Your task to perform on an android device: What's on my calendar today? Image 0: 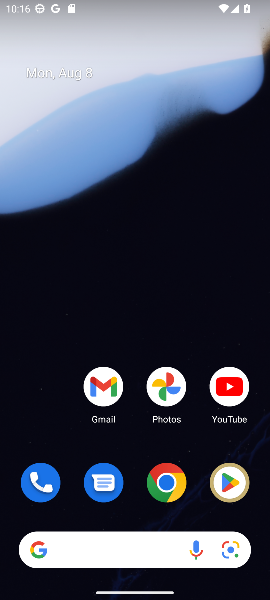
Step 0: drag from (143, 458) to (133, 10)
Your task to perform on an android device: What's on my calendar today? Image 1: 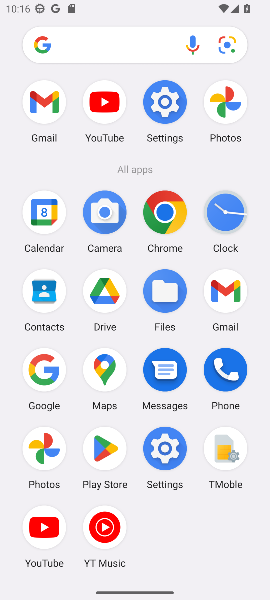
Step 1: click (44, 209)
Your task to perform on an android device: What's on my calendar today? Image 2: 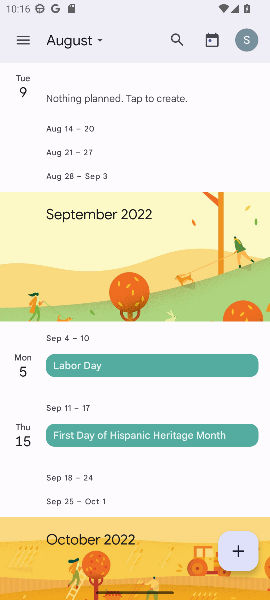
Step 2: click (78, 40)
Your task to perform on an android device: What's on my calendar today? Image 3: 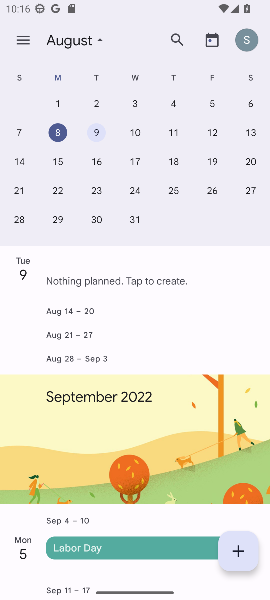
Step 3: click (56, 138)
Your task to perform on an android device: What's on my calendar today? Image 4: 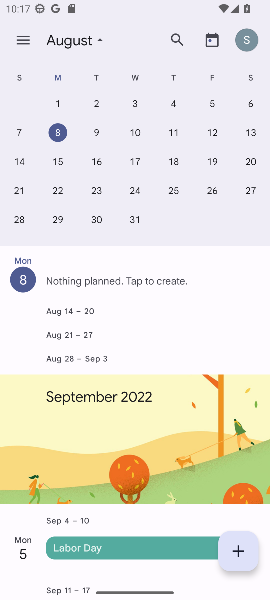
Step 4: task complete